Your task to perform on an android device: Open internet settings Image 0: 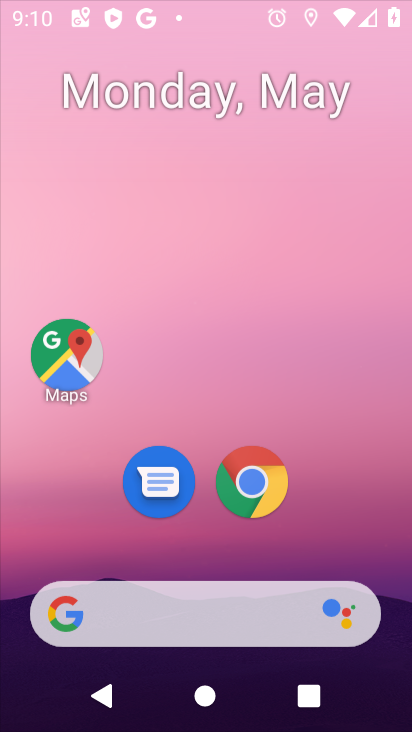
Step 0: click (204, 619)
Your task to perform on an android device: Open internet settings Image 1: 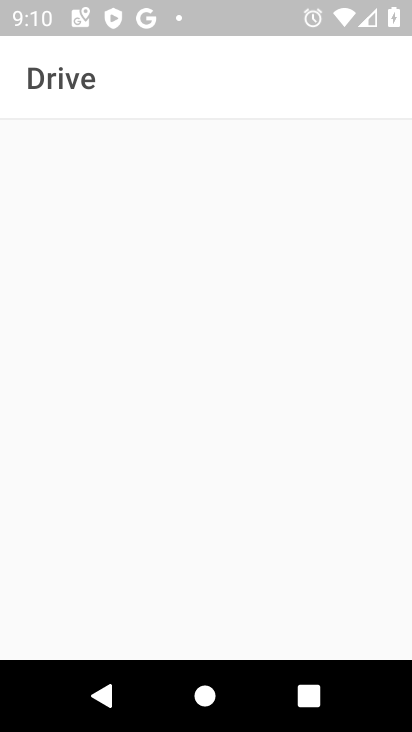
Step 1: drag from (217, 17) to (207, 597)
Your task to perform on an android device: Open internet settings Image 2: 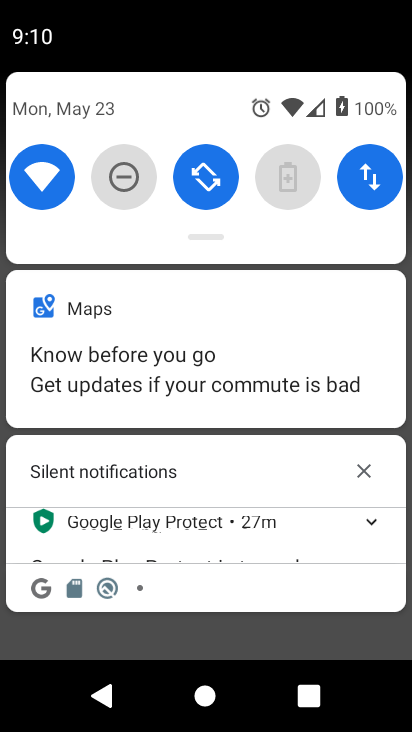
Step 2: click (377, 170)
Your task to perform on an android device: Open internet settings Image 3: 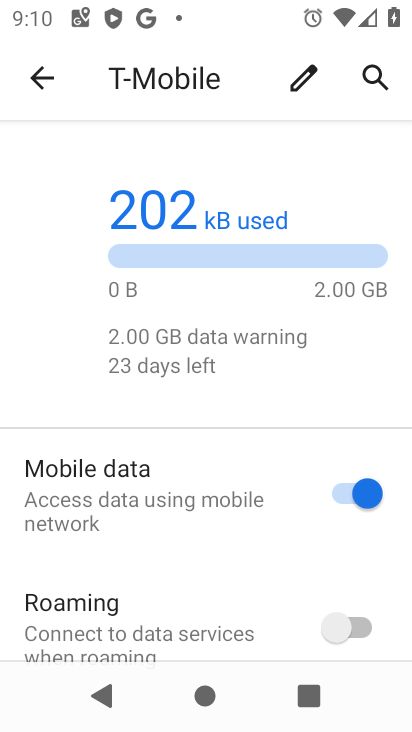
Step 3: task complete